Your task to perform on an android device: See recent photos Image 0: 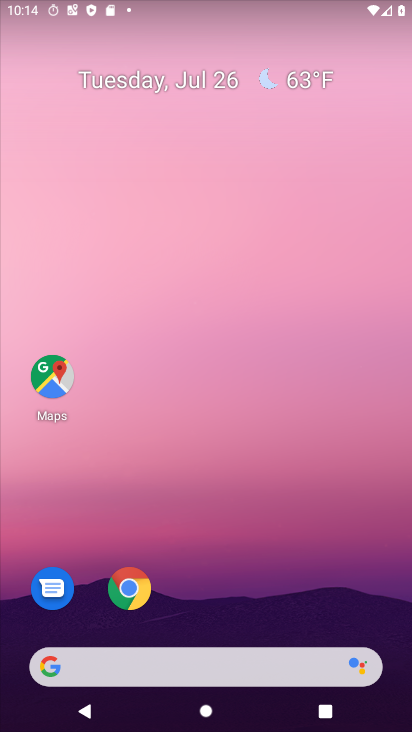
Step 0: drag from (271, 604) to (227, 130)
Your task to perform on an android device: See recent photos Image 1: 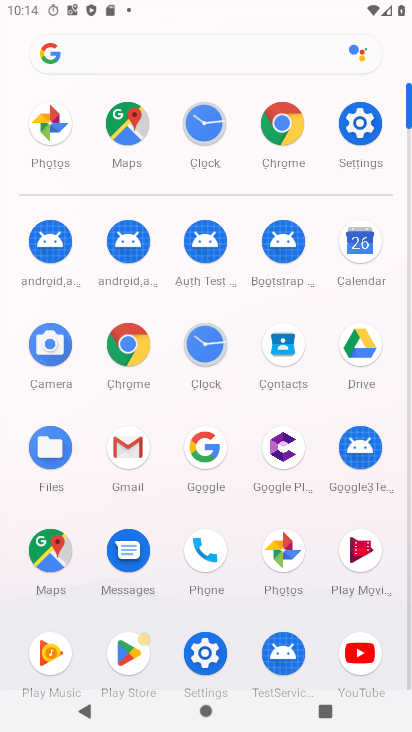
Step 1: click (34, 146)
Your task to perform on an android device: See recent photos Image 2: 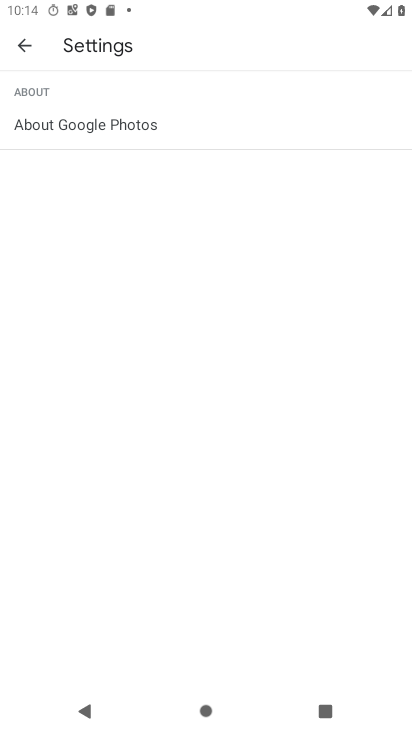
Step 2: click (23, 59)
Your task to perform on an android device: See recent photos Image 3: 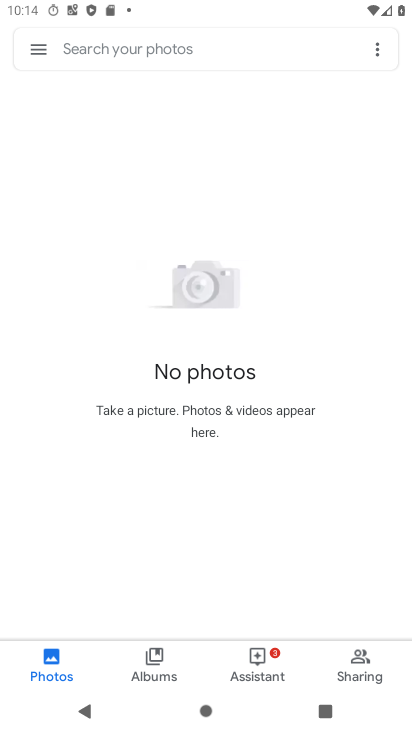
Step 3: task complete